Your task to perform on an android device: Play the last video I watched on Youtube Image 0: 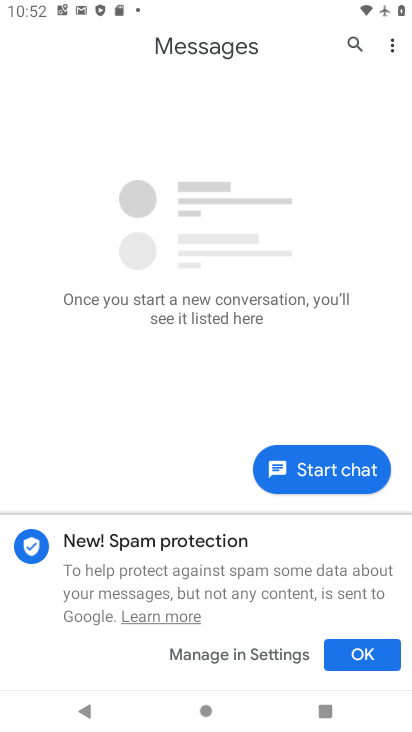
Step 0: press home button
Your task to perform on an android device: Play the last video I watched on Youtube Image 1: 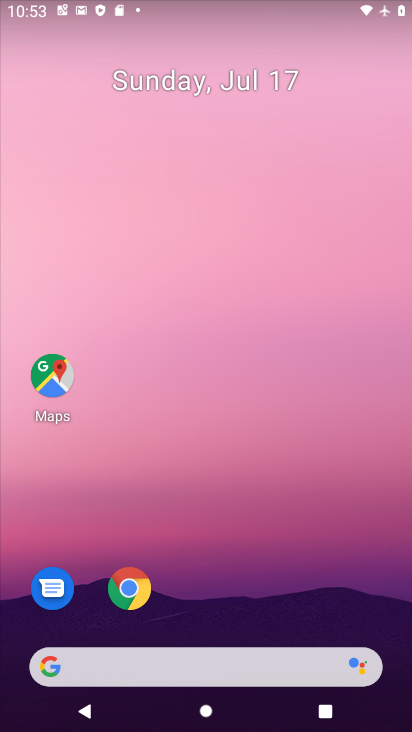
Step 1: drag from (280, 601) to (298, 68)
Your task to perform on an android device: Play the last video I watched on Youtube Image 2: 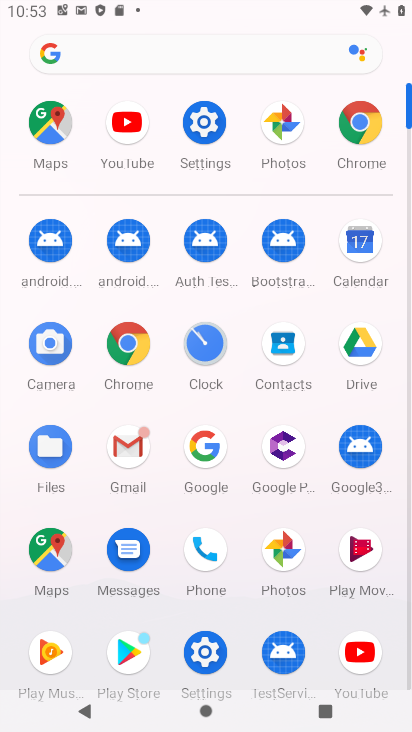
Step 2: click (139, 140)
Your task to perform on an android device: Play the last video I watched on Youtube Image 3: 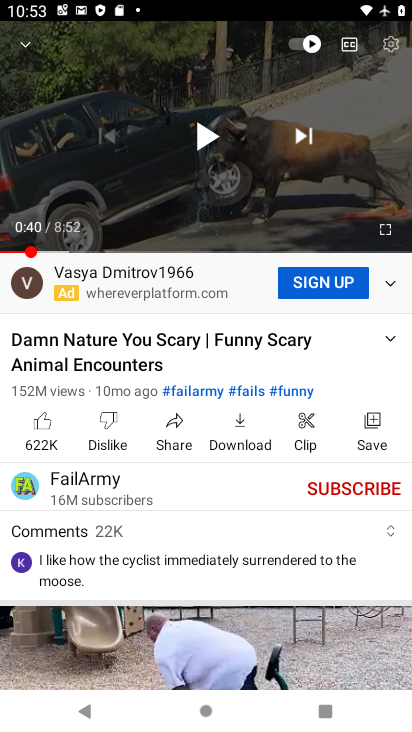
Step 3: click (193, 143)
Your task to perform on an android device: Play the last video I watched on Youtube Image 4: 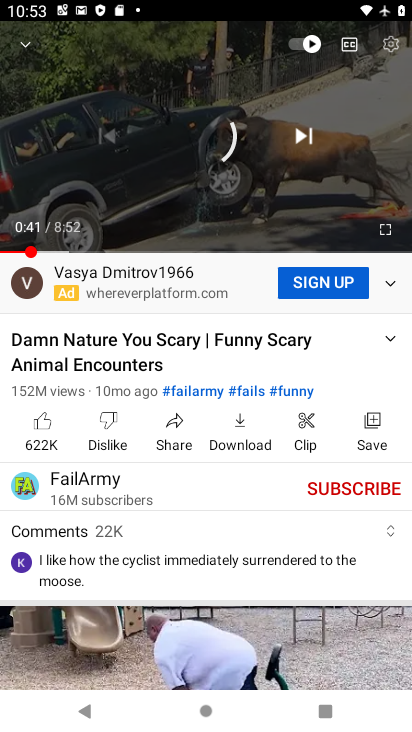
Step 4: drag from (83, 40) to (87, 564)
Your task to perform on an android device: Play the last video I watched on Youtube Image 5: 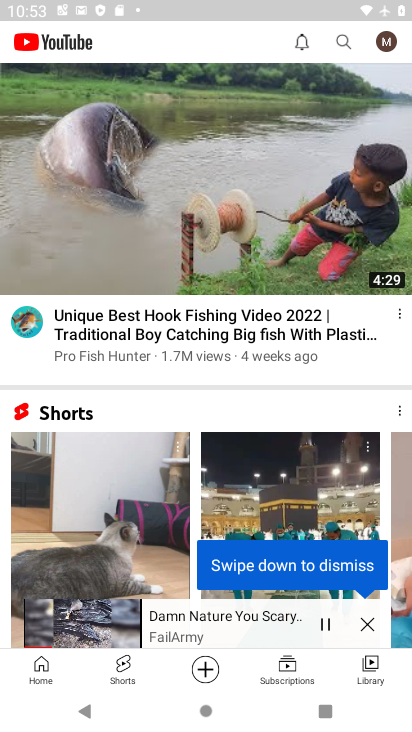
Step 5: click (357, 625)
Your task to perform on an android device: Play the last video I watched on Youtube Image 6: 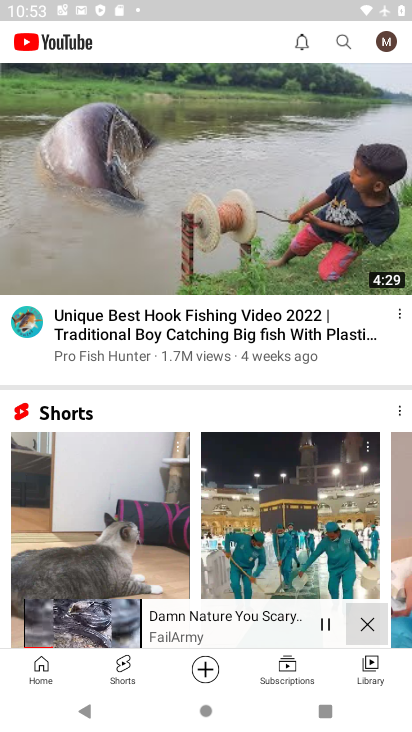
Step 6: click (380, 665)
Your task to perform on an android device: Play the last video I watched on Youtube Image 7: 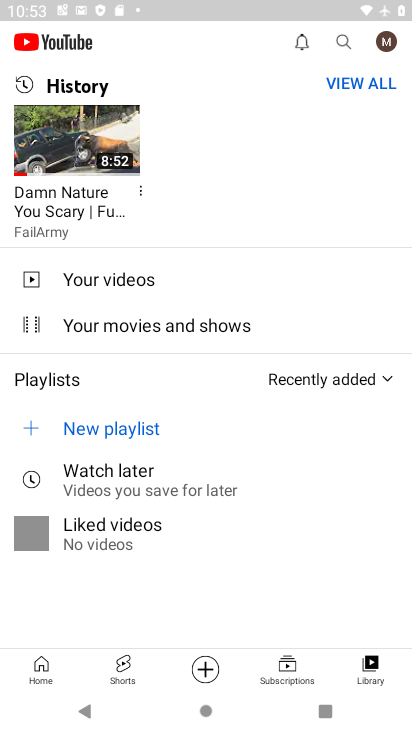
Step 7: click (84, 195)
Your task to perform on an android device: Play the last video I watched on Youtube Image 8: 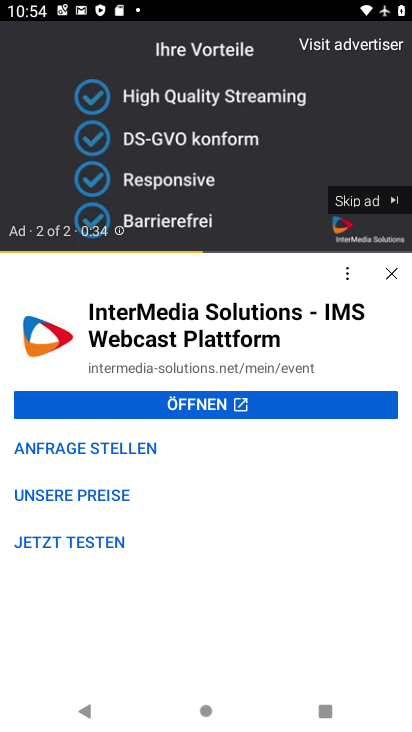
Step 8: click (338, 201)
Your task to perform on an android device: Play the last video I watched on Youtube Image 9: 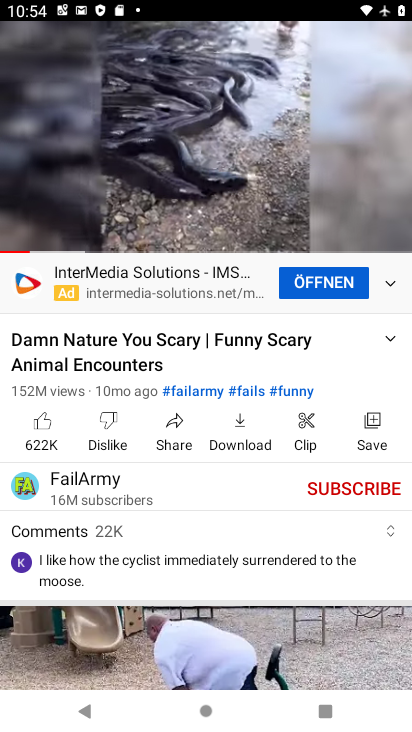
Step 9: task complete